Your task to perform on an android device: Check the news Image 0: 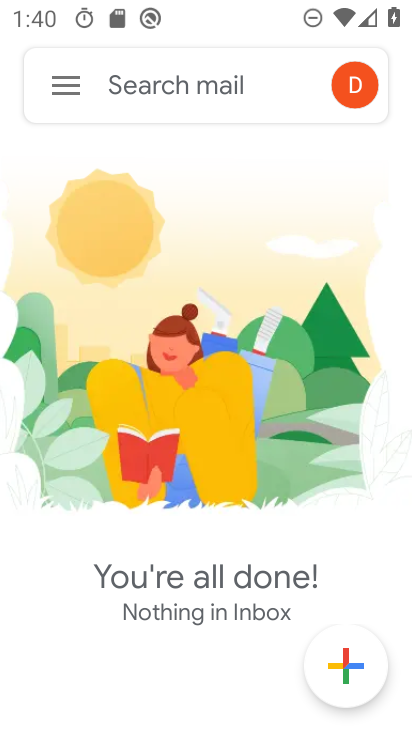
Step 0: click (411, 330)
Your task to perform on an android device: Check the news Image 1: 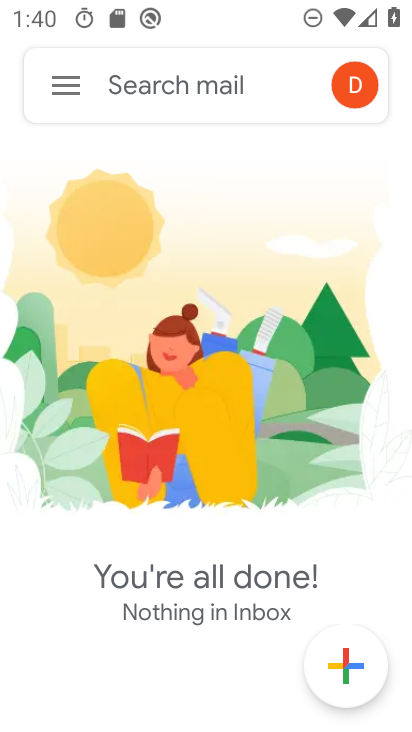
Step 1: drag from (232, 556) to (295, 227)
Your task to perform on an android device: Check the news Image 2: 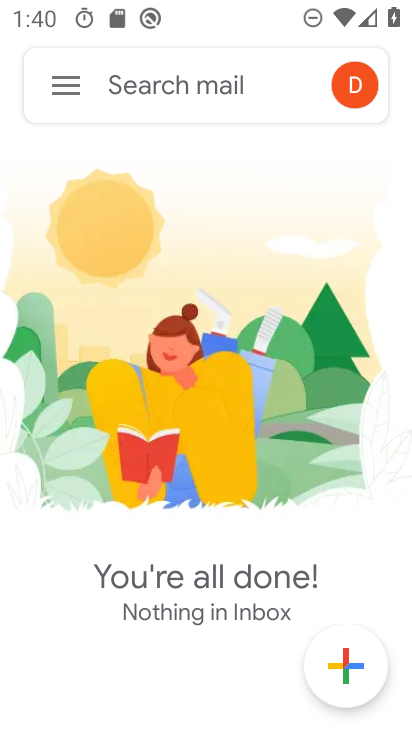
Step 2: press home button
Your task to perform on an android device: Check the news Image 3: 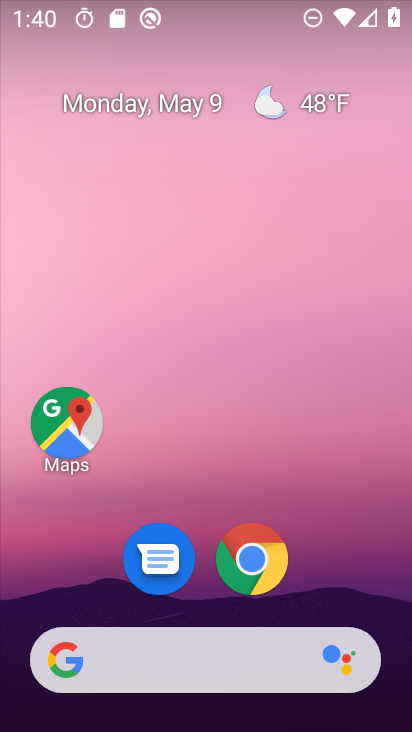
Step 3: drag from (202, 604) to (295, 182)
Your task to perform on an android device: Check the news Image 4: 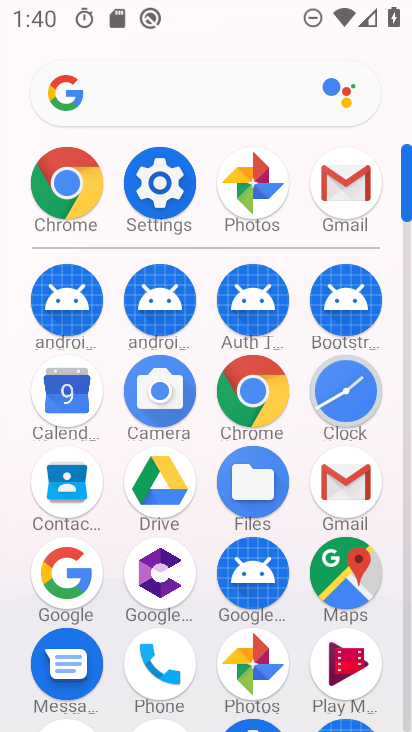
Step 4: click (184, 96)
Your task to perform on an android device: Check the news Image 5: 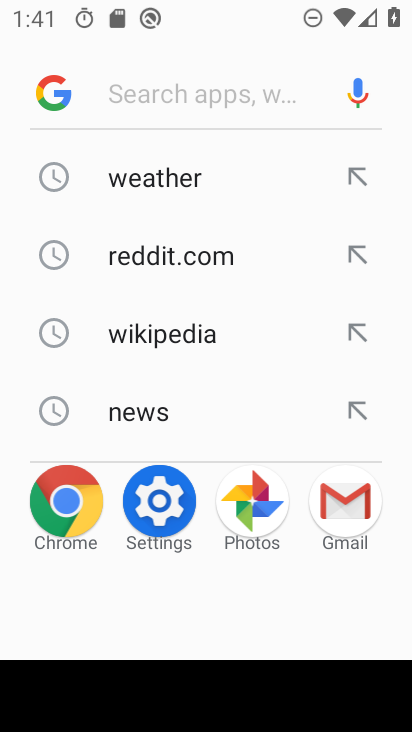
Step 5: click (150, 408)
Your task to perform on an android device: Check the news Image 6: 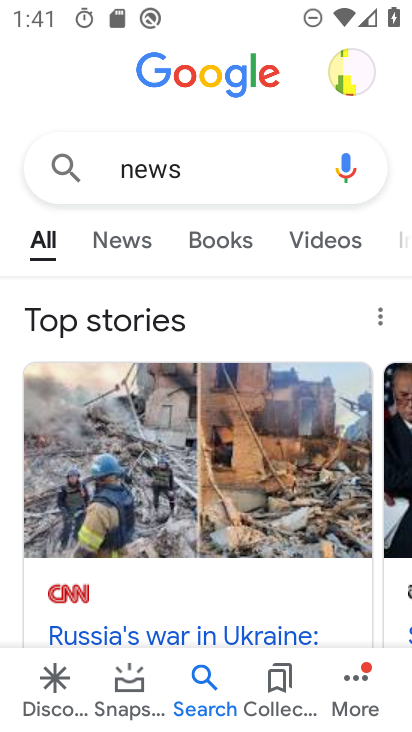
Step 6: task complete